Your task to perform on an android device: Search for "razer deathadder" on costco, select the first entry, add it to the cart, then select checkout. Image 0: 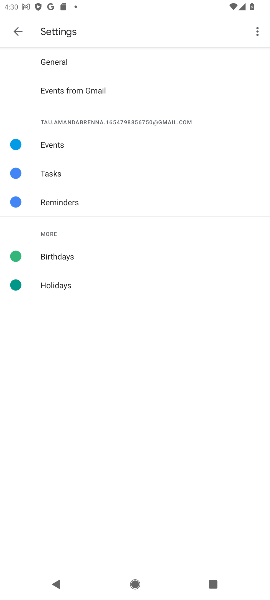
Step 0: press home button
Your task to perform on an android device: Search for "razer deathadder" on costco, select the first entry, add it to the cart, then select checkout. Image 1: 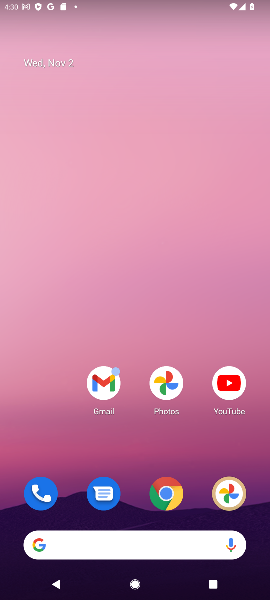
Step 1: drag from (113, 508) to (249, 68)
Your task to perform on an android device: Search for "razer deathadder" on costco, select the first entry, add it to the cart, then select checkout. Image 2: 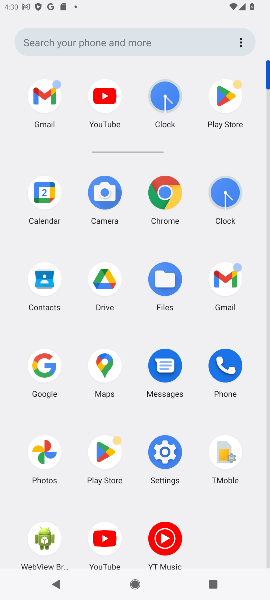
Step 2: click (38, 360)
Your task to perform on an android device: Search for "razer deathadder" on costco, select the first entry, add it to the cart, then select checkout. Image 3: 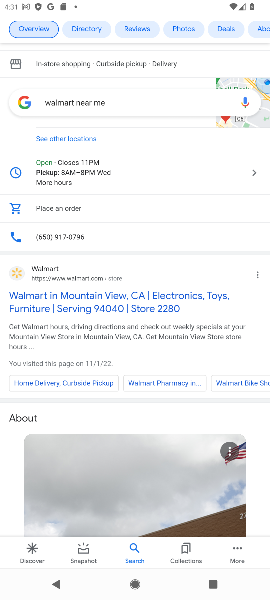
Step 3: click (94, 104)
Your task to perform on an android device: Search for "razer deathadder" on costco, select the first entry, add it to the cart, then select checkout. Image 4: 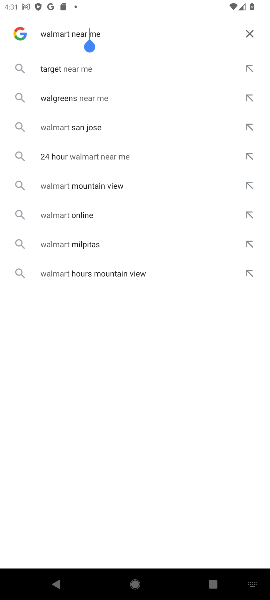
Step 4: click (251, 29)
Your task to perform on an android device: Search for "razer deathadder" on costco, select the first entry, add it to the cart, then select checkout. Image 5: 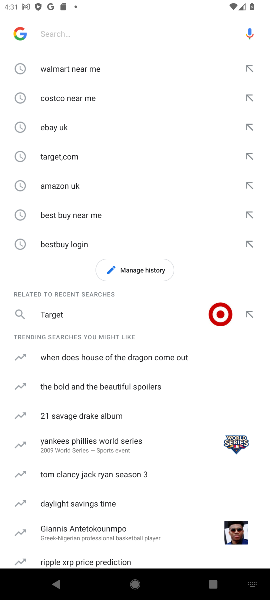
Step 5: click (57, 28)
Your task to perform on an android device: Search for "razer deathadder" on costco, select the first entry, add it to the cart, then select checkout. Image 6: 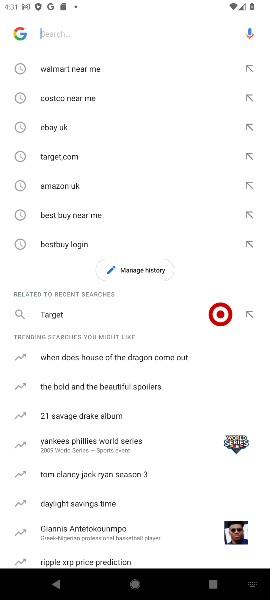
Step 6: type "costco "
Your task to perform on an android device: Search for "razer deathadder" on costco, select the first entry, add it to the cart, then select checkout. Image 7: 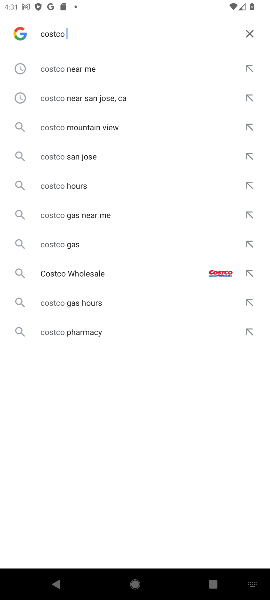
Step 7: click (58, 68)
Your task to perform on an android device: Search for "razer deathadder" on costco, select the first entry, add it to the cart, then select checkout. Image 8: 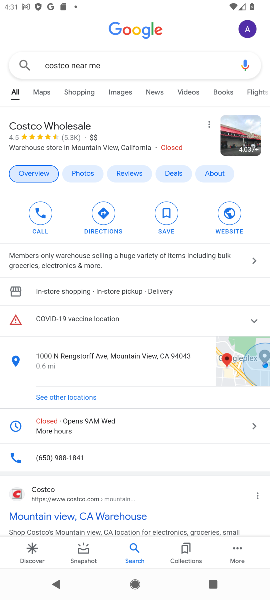
Step 8: click (17, 493)
Your task to perform on an android device: Search for "razer deathadder" on costco, select the first entry, add it to the cart, then select checkout. Image 9: 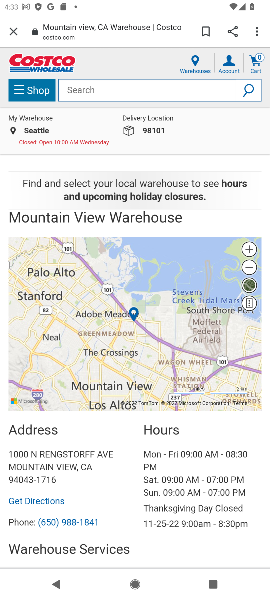
Step 9: click (93, 82)
Your task to perform on an android device: Search for "razer deathadder" on costco, select the first entry, add it to the cart, then select checkout. Image 10: 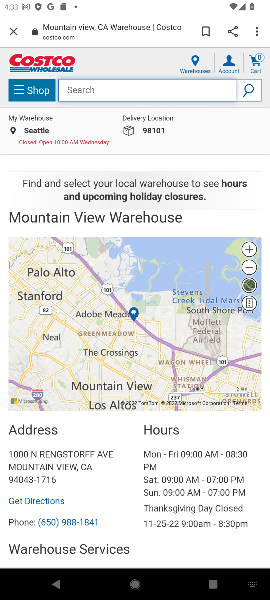
Step 10: type "razer deathadder "
Your task to perform on an android device: Search for "razer deathadder" on costco, select the first entry, add it to the cart, then select checkout. Image 11: 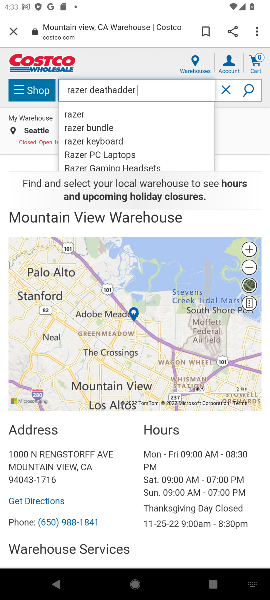
Step 11: click (80, 116)
Your task to perform on an android device: Search for "razer deathadder" on costco, select the first entry, add it to the cart, then select checkout. Image 12: 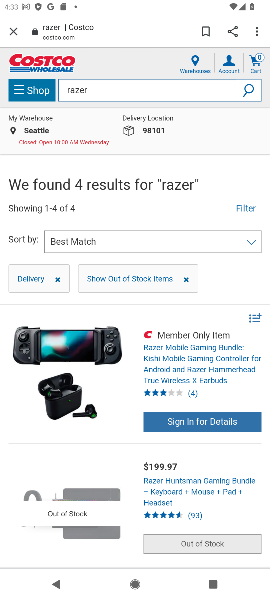
Step 12: drag from (137, 459) to (145, 350)
Your task to perform on an android device: Search for "razer deathadder" on costco, select the first entry, add it to the cart, then select checkout. Image 13: 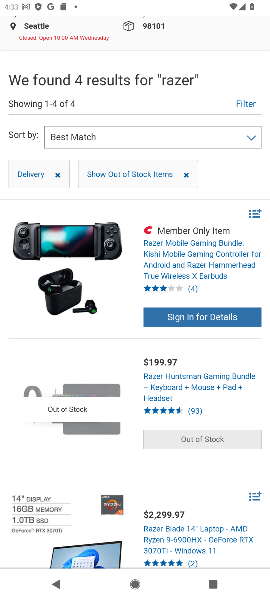
Step 13: drag from (150, 514) to (161, 300)
Your task to perform on an android device: Search for "razer deathadder" on costco, select the first entry, add it to the cart, then select checkout. Image 14: 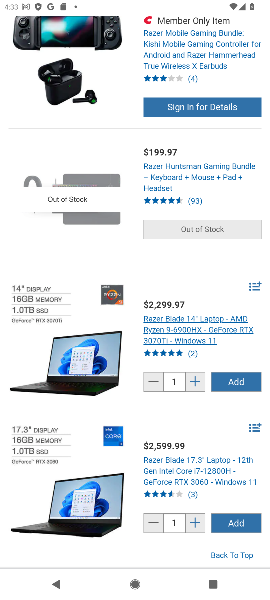
Step 14: click (227, 380)
Your task to perform on an android device: Search for "razer deathadder" on costco, select the first entry, add it to the cart, then select checkout. Image 15: 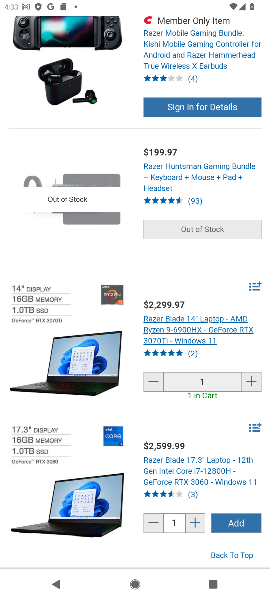
Step 15: task complete